Your task to perform on an android device: see creations saved in the google photos Image 0: 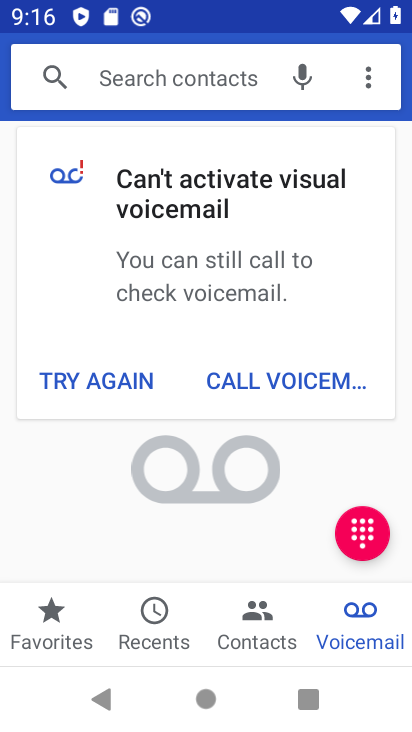
Step 0: press back button
Your task to perform on an android device: see creations saved in the google photos Image 1: 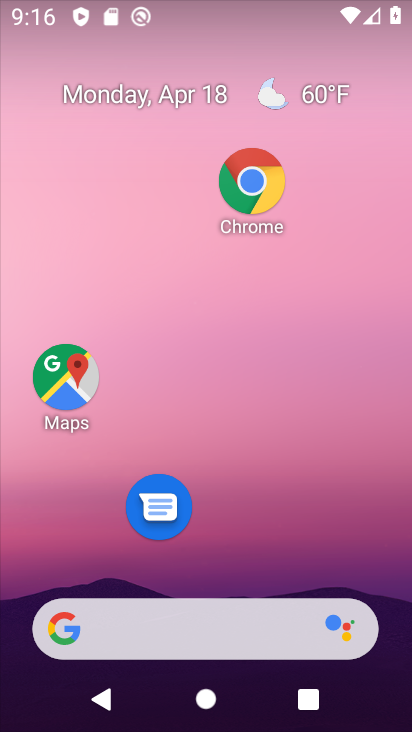
Step 1: drag from (155, 602) to (128, 118)
Your task to perform on an android device: see creations saved in the google photos Image 2: 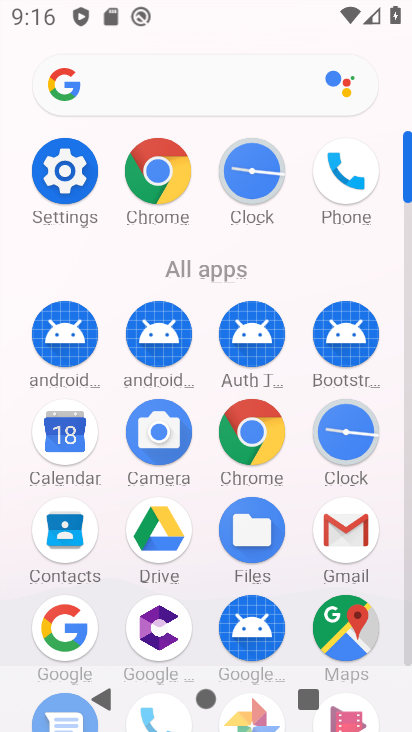
Step 2: drag from (207, 578) to (220, 179)
Your task to perform on an android device: see creations saved in the google photos Image 3: 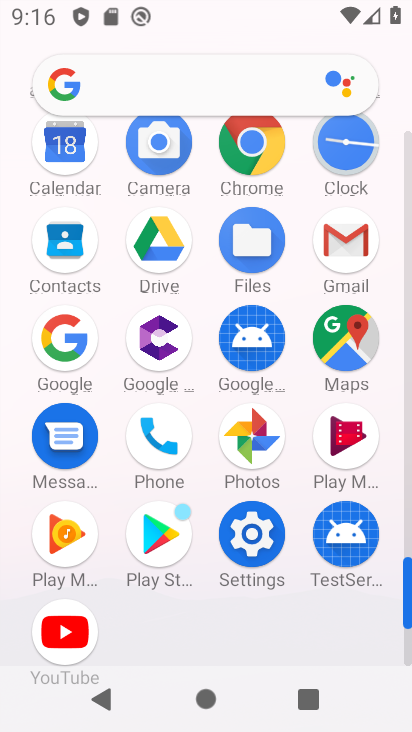
Step 3: click (245, 426)
Your task to perform on an android device: see creations saved in the google photos Image 4: 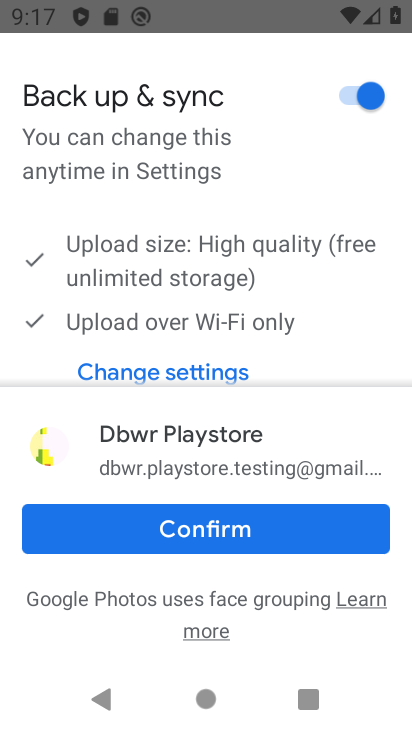
Step 4: click (340, 511)
Your task to perform on an android device: see creations saved in the google photos Image 5: 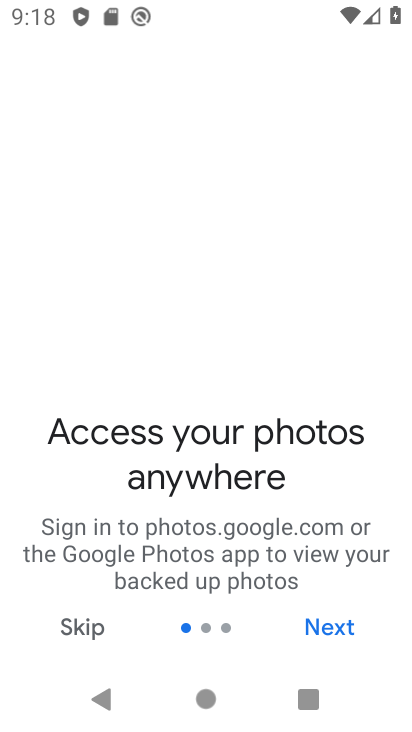
Step 5: click (324, 620)
Your task to perform on an android device: see creations saved in the google photos Image 6: 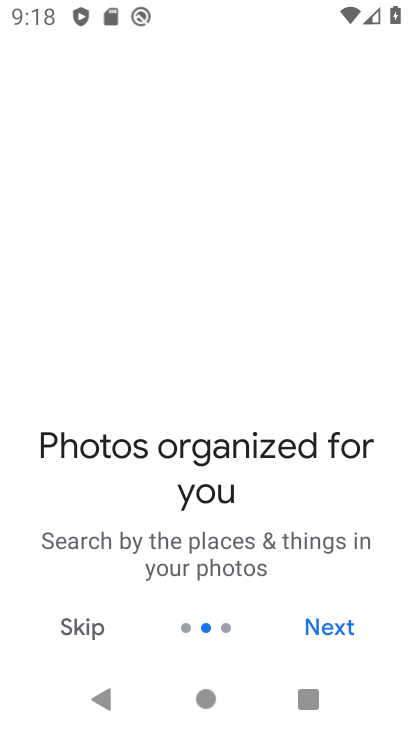
Step 6: click (324, 620)
Your task to perform on an android device: see creations saved in the google photos Image 7: 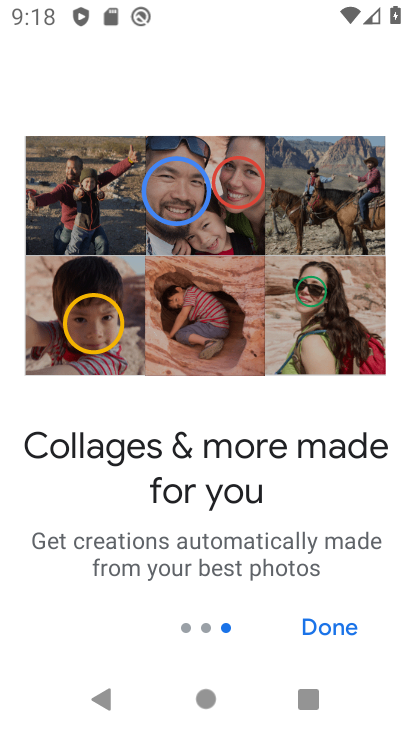
Step 7: click (324, 620)
Your task to perform on an android device: see creations saved in the google photos Image 8: 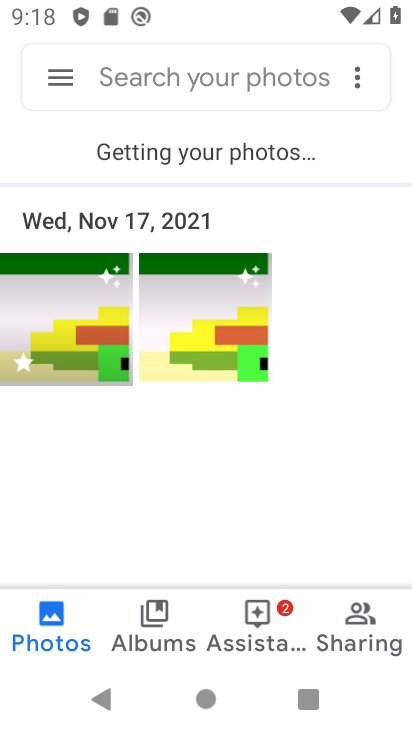
Step 8: click (240, 614)
Your task to perform on an android device: see creations saved in the google photos Image 9: 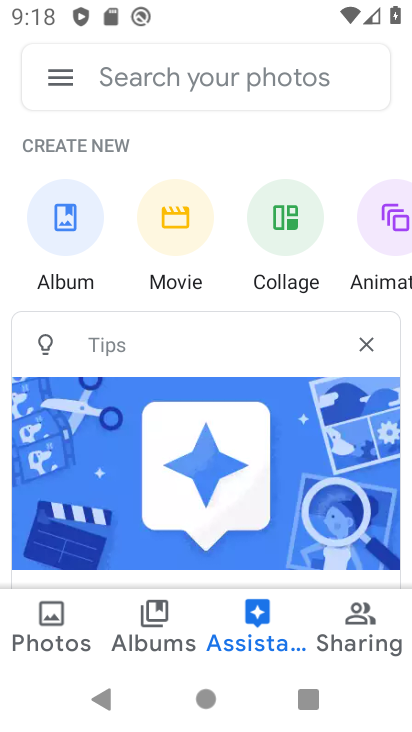
Step 9: task complete